Your task to perform on an android device: Open Google Chrome and open the bookmarks view Image 0: 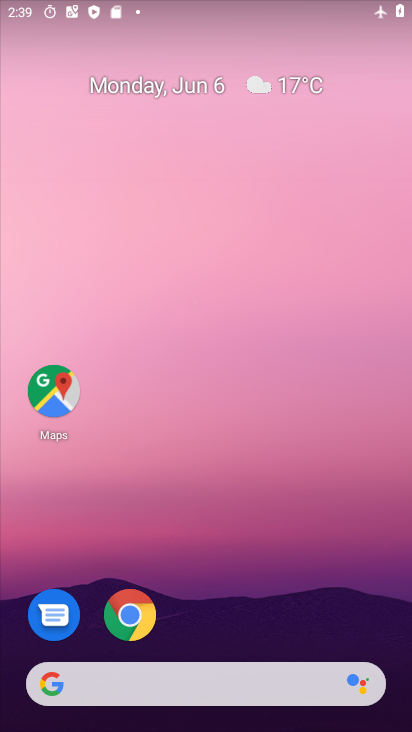
Step 0: click (291, 115)
Your task to perform on an android device: Open Google Chrome and open the bookmarks view Image 1: 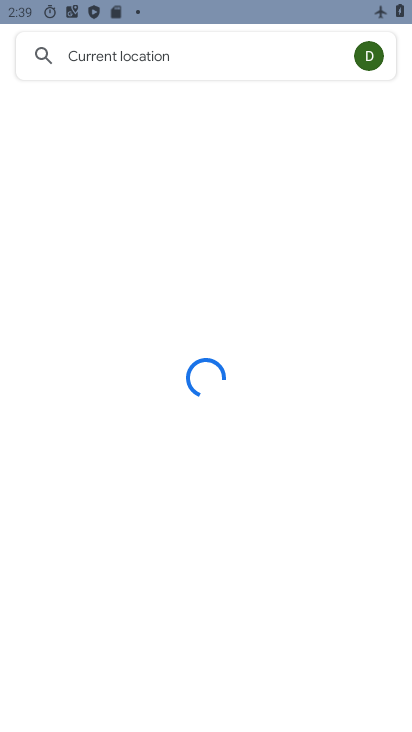
Step 1: drag from (199, 610) to (274, 115)
Your task to perform on an android device: Open Google Chrome and open the bookmarks view Image 2: 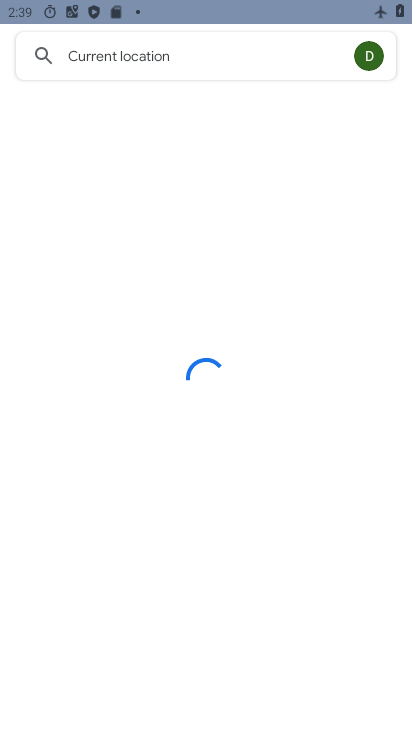
Step 2: press home button
Your task to perform on an android device: Open Google Chrome and open the bookmarks view Image 3: 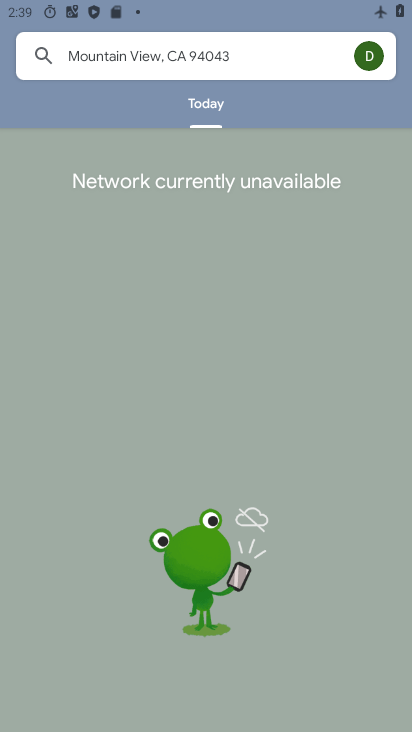
Step 3: press home button
Your task to perform on an android device: Open Google Chrome and open the bookmarks view Image 4: 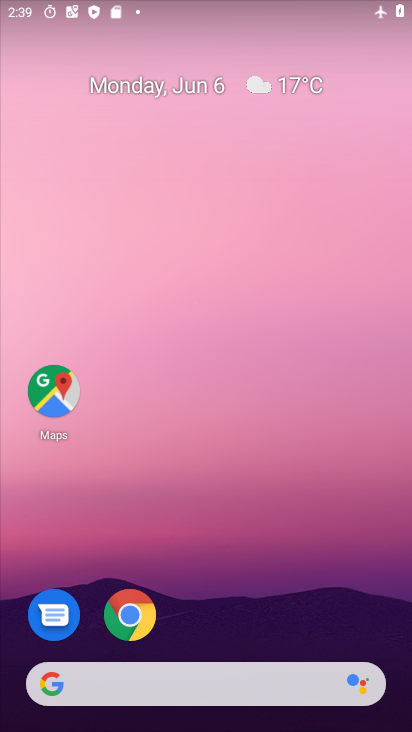
Step 4: drag from (204, 554) to (191, 149)
Your task to perform on an android device: Open Google Chrome and open the bookmarks view Image 5: 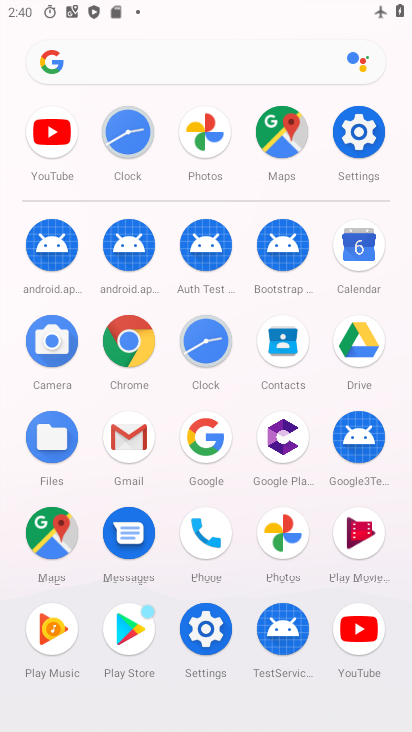
Step 5: click (131, 357)
Your task to perform on an android device: Open Google Chrome and open the bookmarks view Image 6: 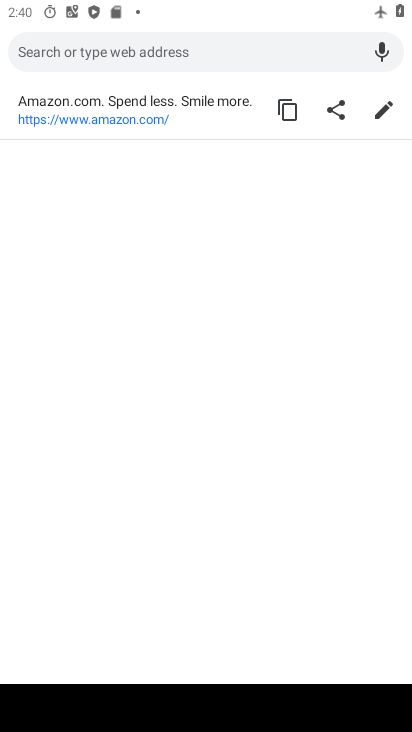
Step 6: task complete